Your task to perform on an android device: What's the news in Colombia? Image 0: 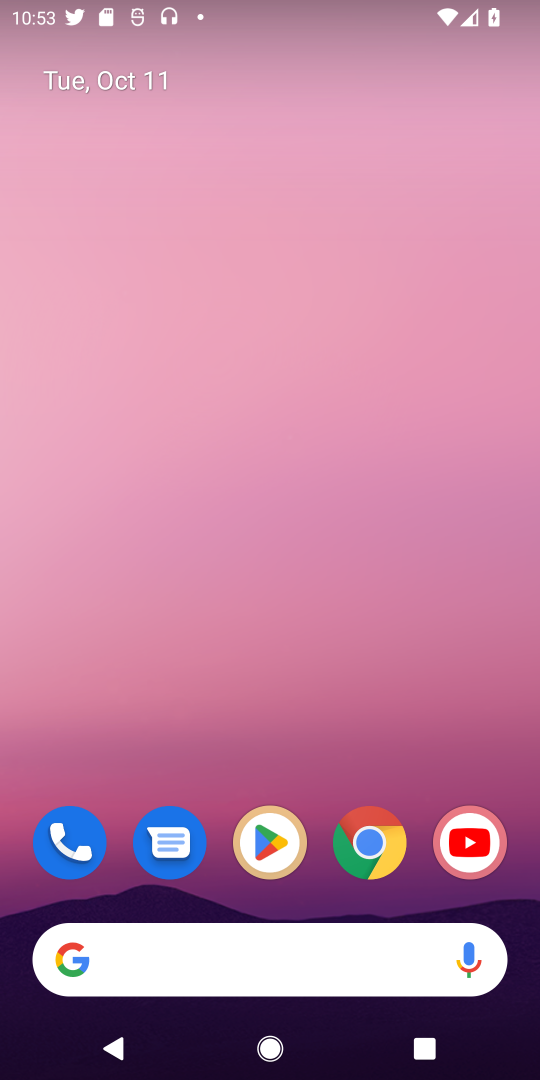
Step 0: click (349, 827)
Your task to perform on an android device: What's the news in Colombia? Image 1: 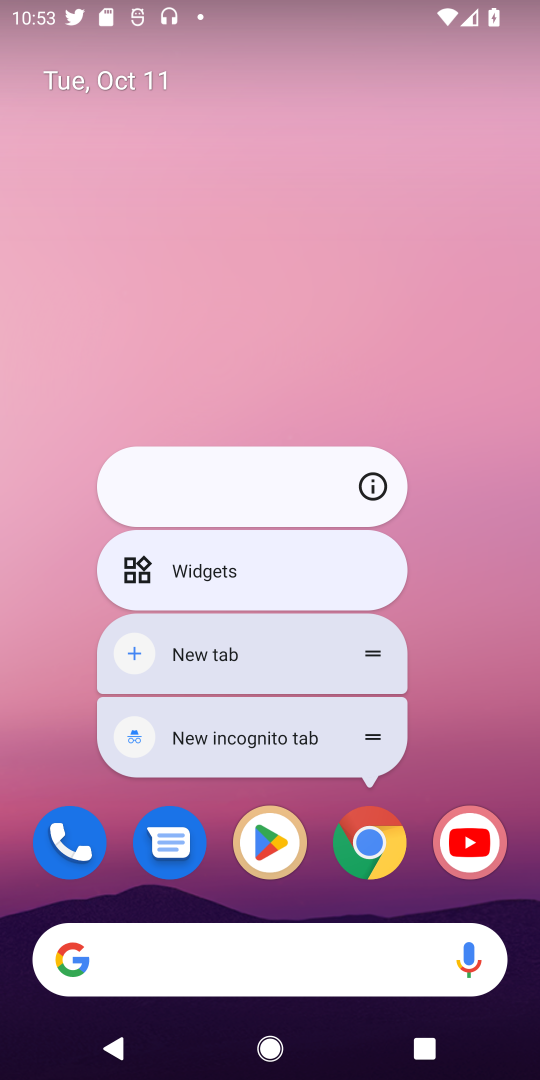
Step 1: click (354, 864)
Your task to perform on an android device: What's the news in Colombia? Image 2: 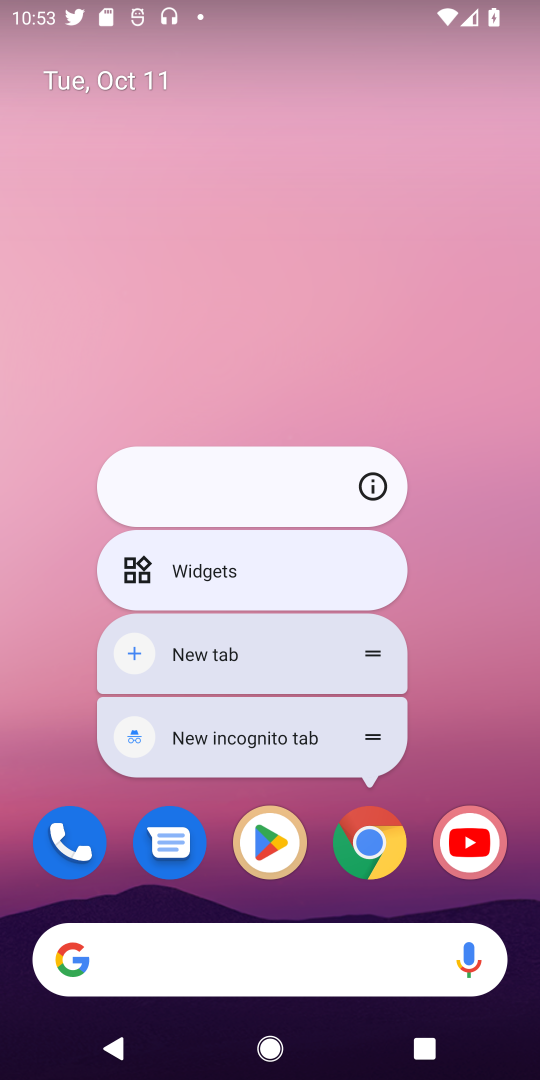
Step 2: click (360, 852)
Your task to perform on an android device: What's the news in Colombia? Image 3: 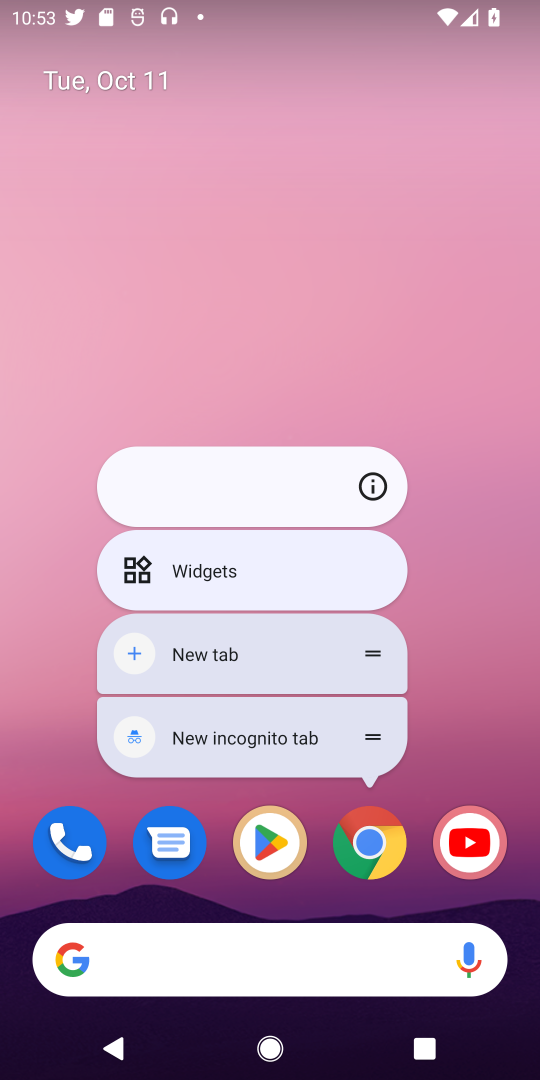
Step 3: press back button
Your task to perform on an android device: What's the news in Colombia? Image 4: 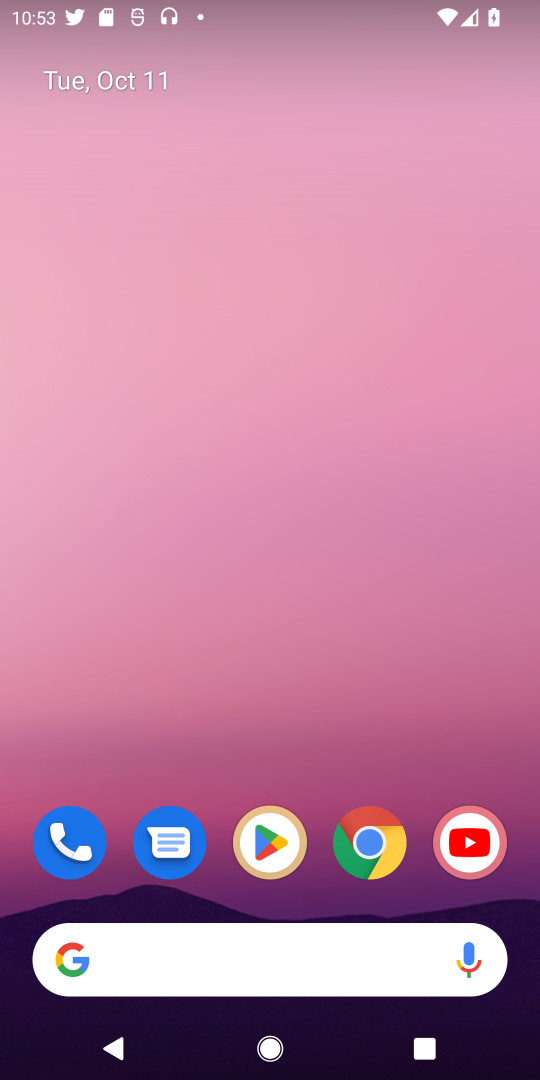
Step 4: click (387, 839)
Your task to perform on an android device: What's the news in Colombia? Image 5: 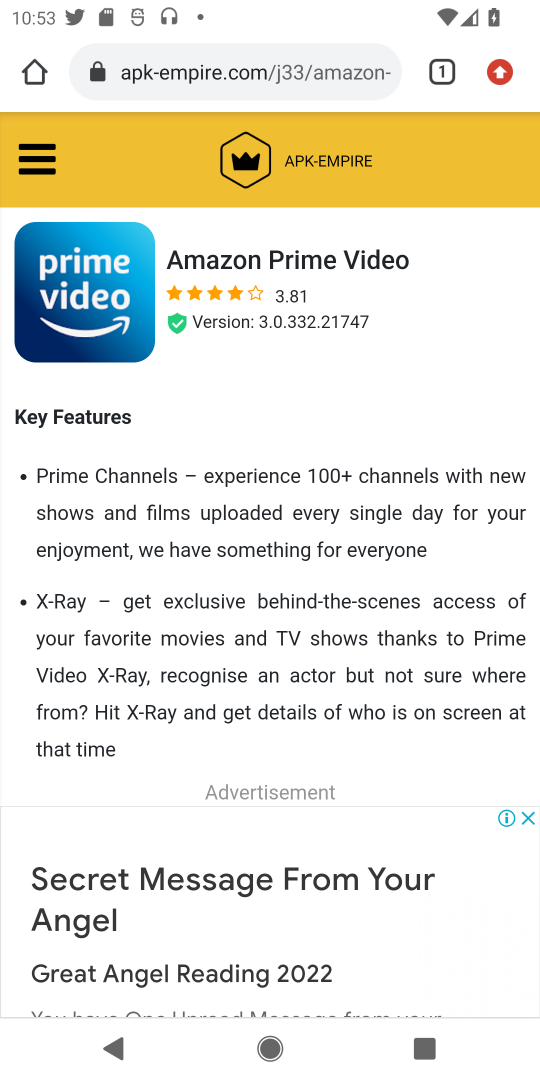
Step 5: click (188, 75)
Your task to perform on an android device: What's the news in Colombia? Image 6: 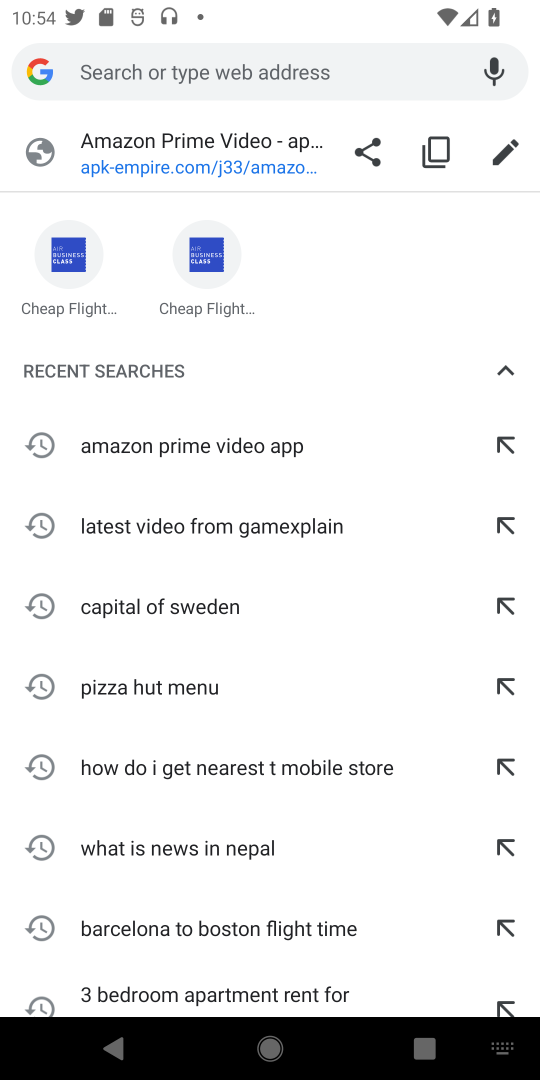
Step 6: type "news in colombia"
Your task to perform on an android device: What's the news in Colombia? Image 7: 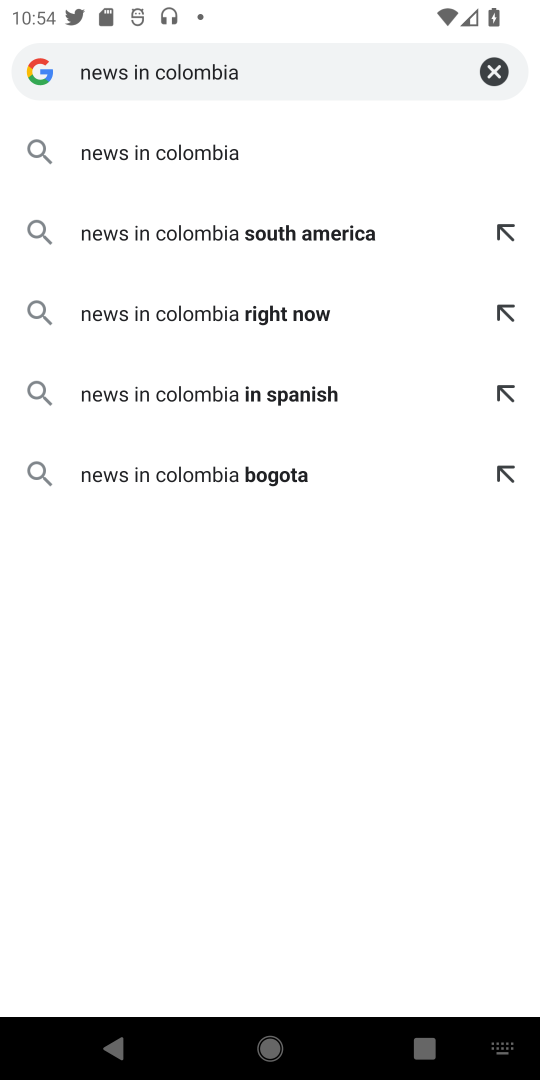
Step 7: click (198, 157)
Your task to perform on an android device: What's the news in Colombia? Image 8: 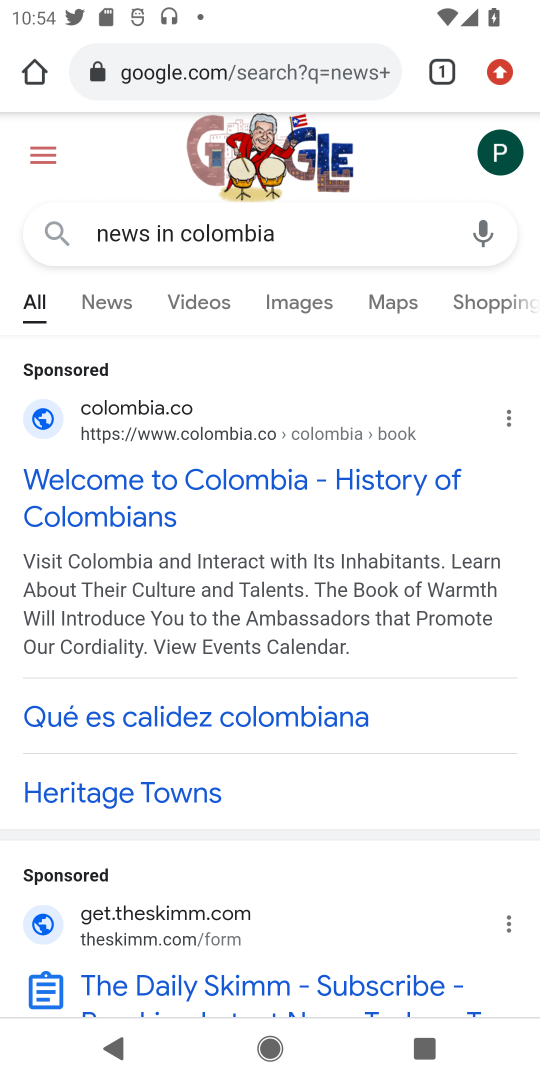
Step 8: click (104, 302)
Your task to perform on an android device: What's the news in Colombia? Image 9: 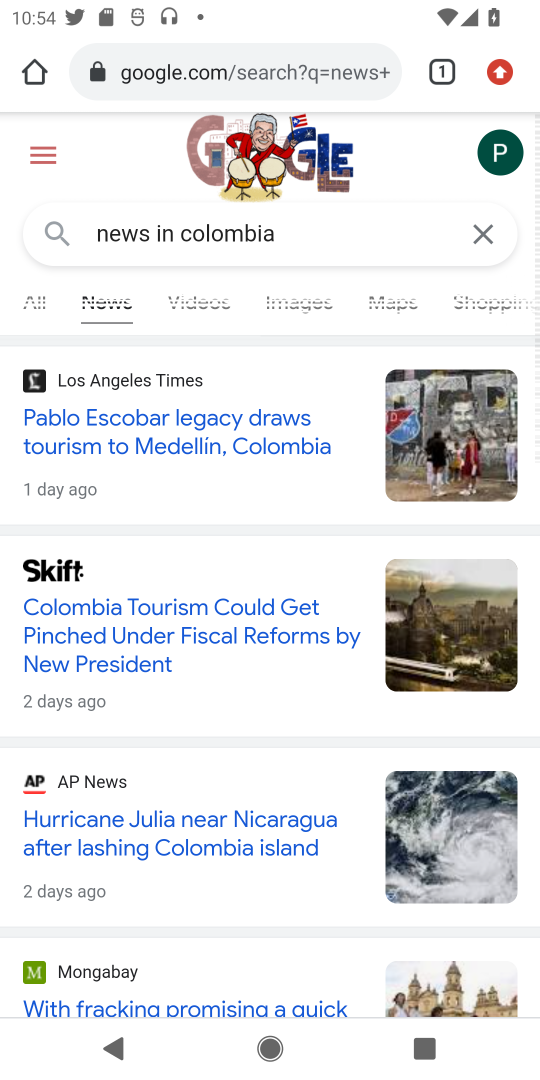
Step 9: drag from (91, 746) to (166, 299)
Your task to perform on an android device: What's the news in Colombia? Image 10: 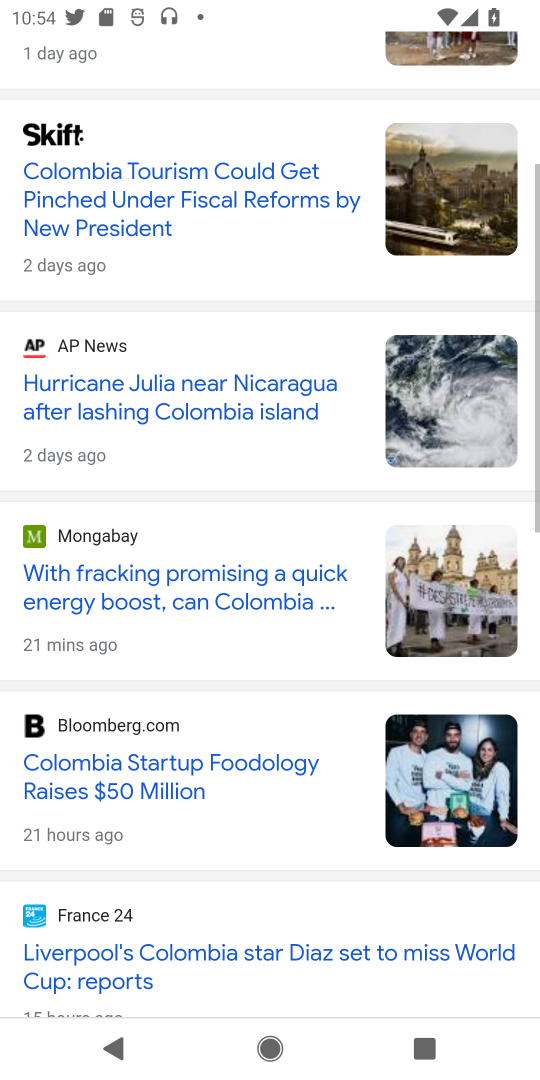
Step 10: drag from (136, 846) to (218, 223)
Your task to perform on an android device: What's the news in Colombia? Image 11: 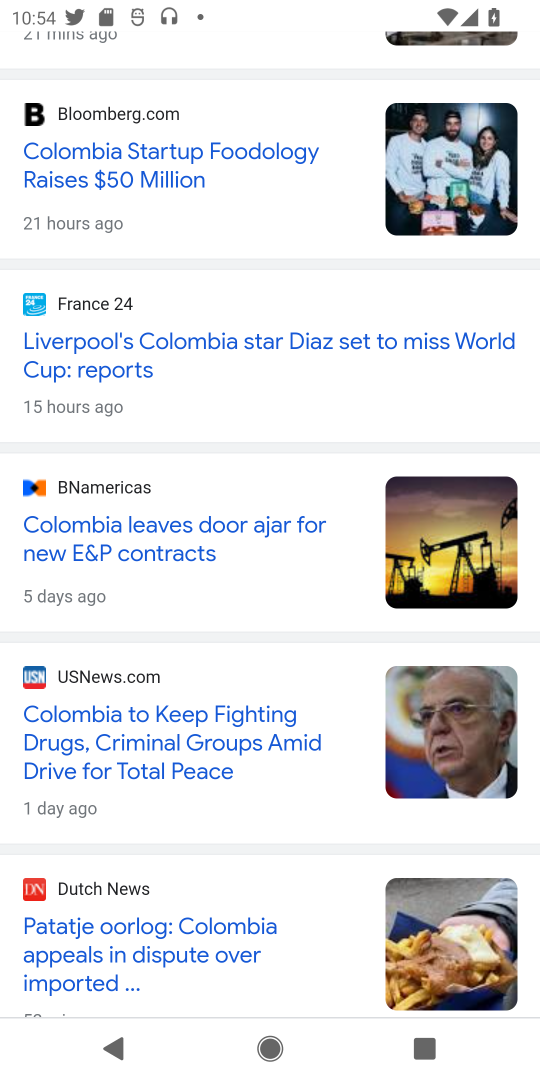
Step 11: drag from (123, 823) to (195, 400)
Your task to perform on an android device: What's the news in Colombia? Image 12: 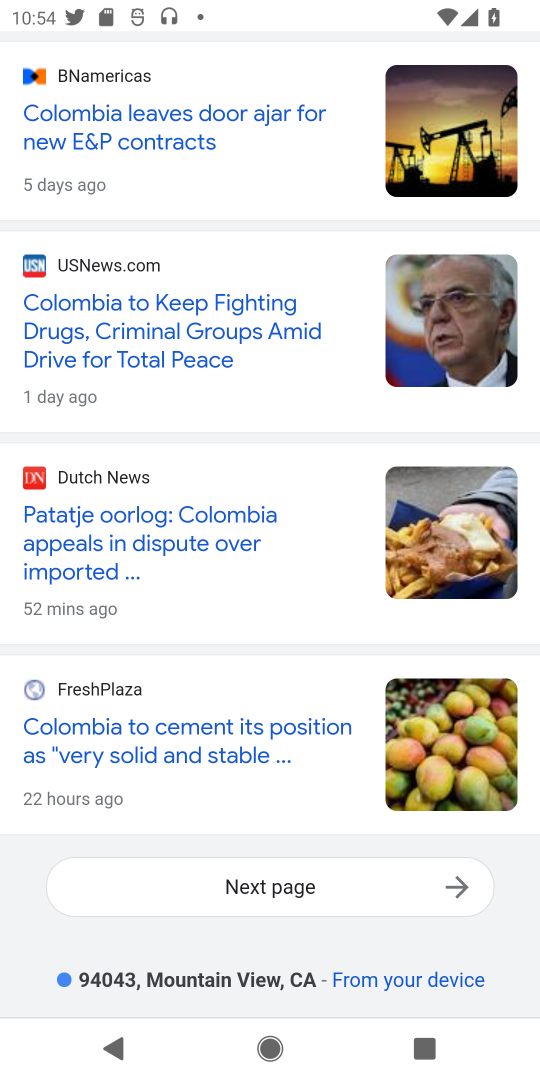
Step 12: drag from (320, 187) to (335, 1034)
Your task to perform on an android device: What's the news in Colombia? Image 13: 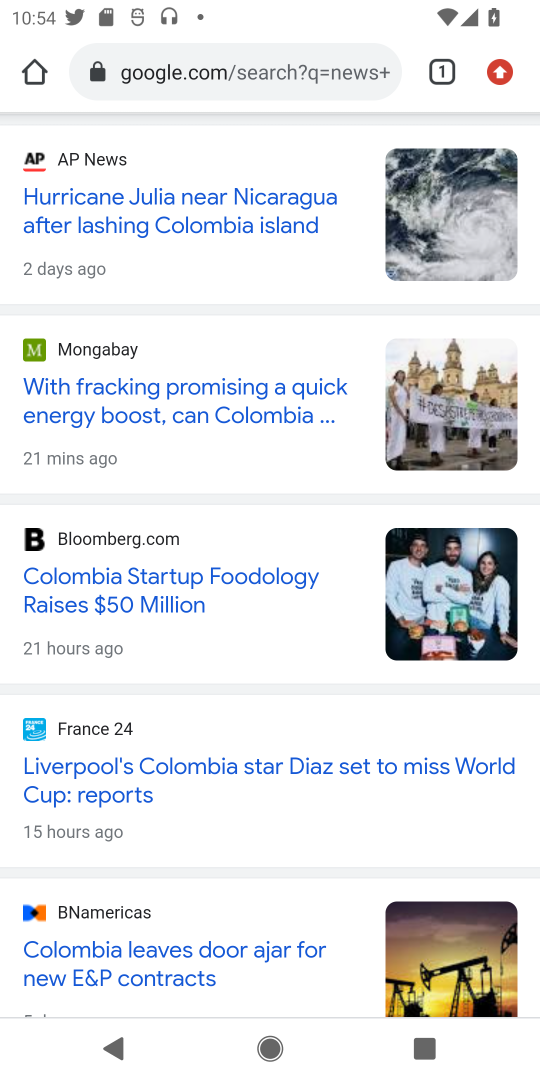
Step 13: drag from (126, 310) to (294, 1000)
Your task to perform on an android device: What's the news in Colombia? Image 14: 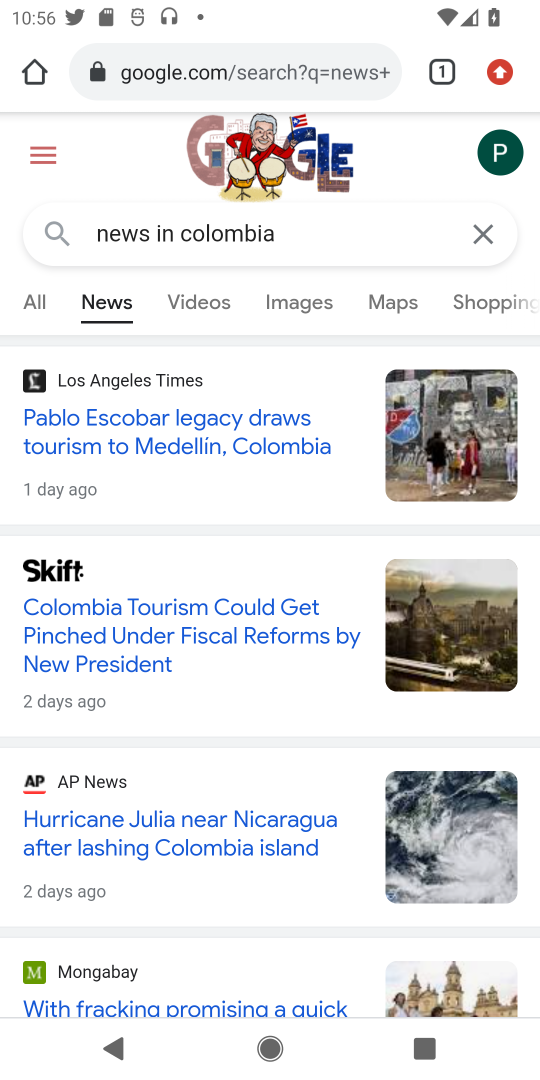
Step 14: click (312, 70)
Your task to perform on an android device: What's the news in Colombia? Image 15: 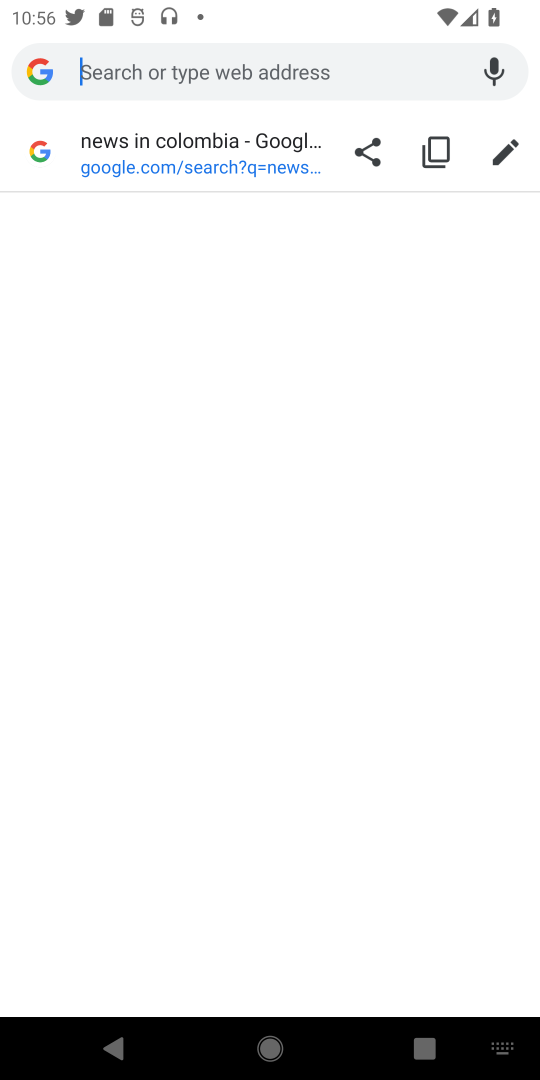
Step 15: type "news in colombia"
Your task to perform on an android device: What's the news in Colombia? Image 16: 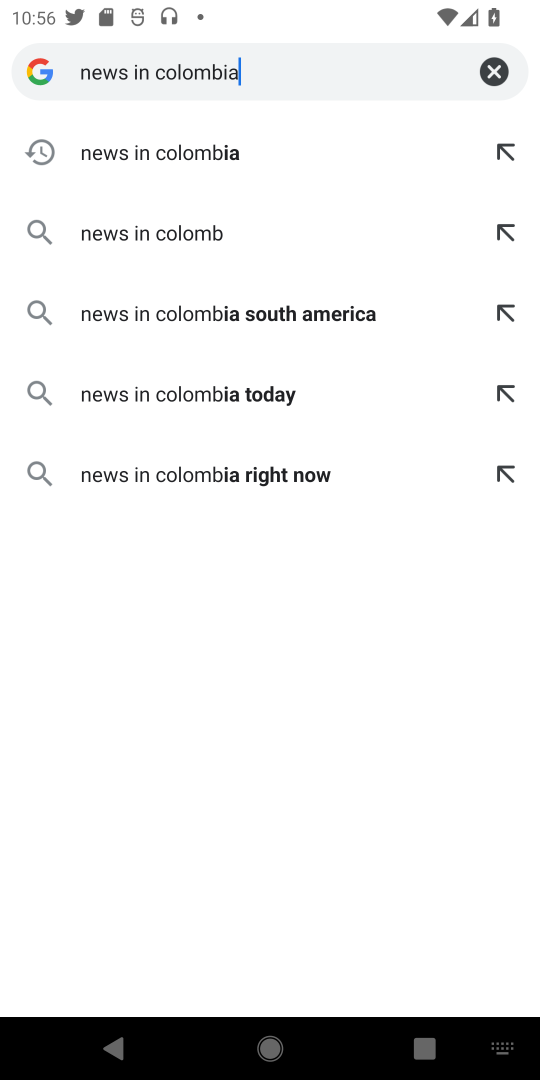
Step 16: type ""
Your task to perform on an android device: What's the news in Colombia? Image 17: 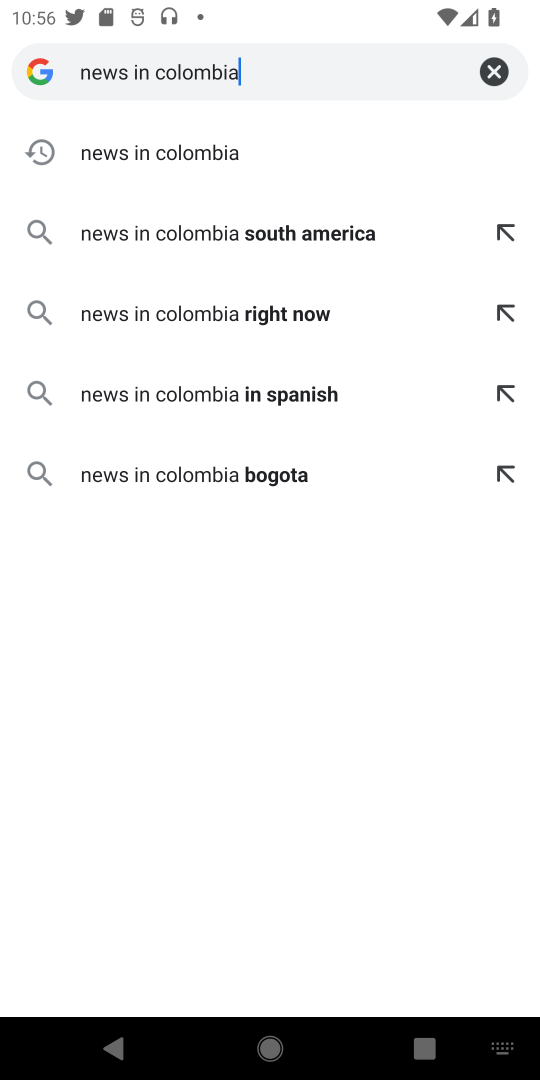
Step 17: click (191, 157)
Your task to perform on an android device: What's the news in Colombia? Image 18: 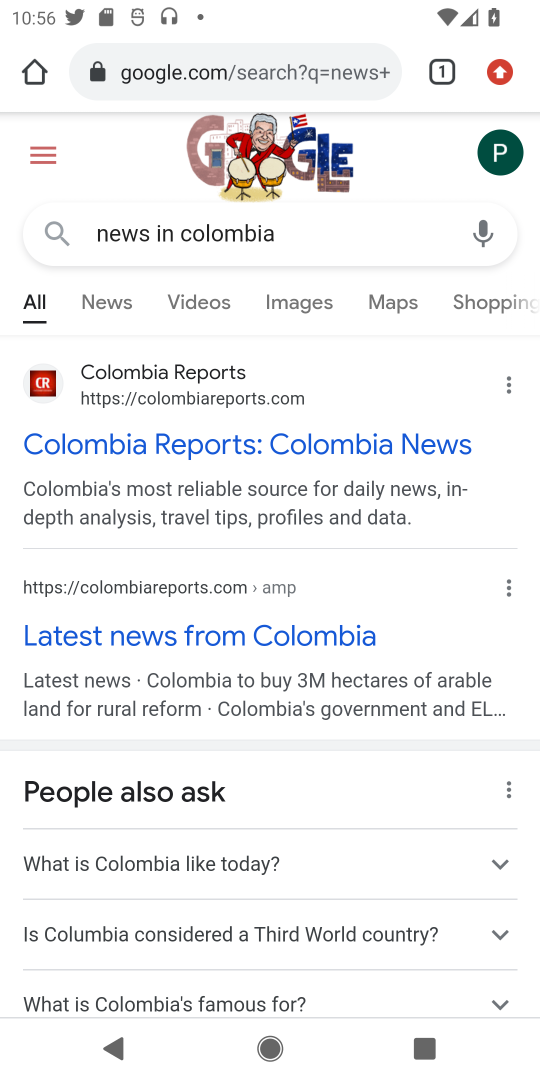
Step 18: click (148, 643)
Your task to perform on an android device: What's the news in Colombia? Image 19: 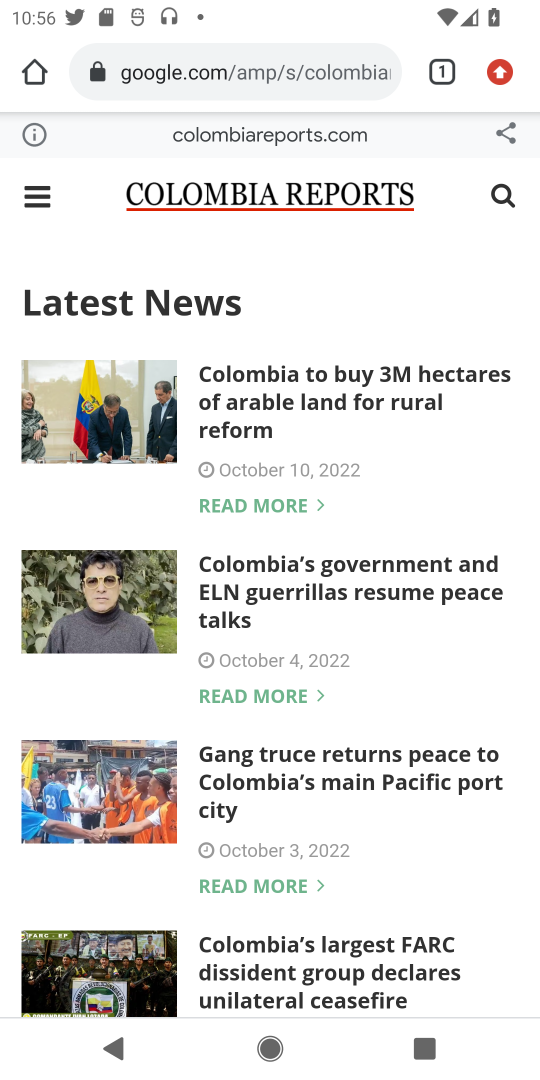
Step 19: click (277, 366)
Your task to perform on an android device: What's the news in Colombia? Image 20: 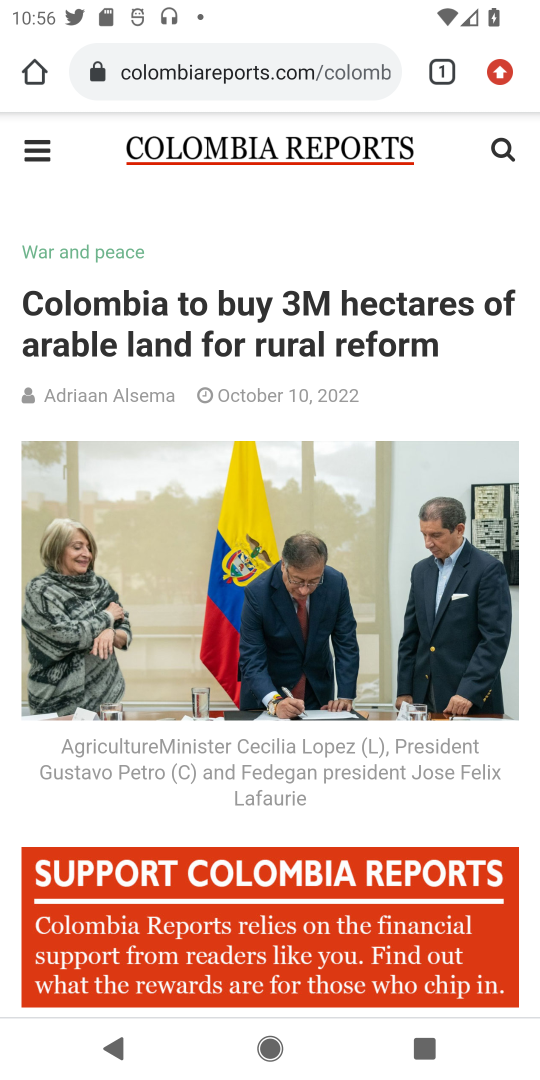
Step 20: task complete